Your task to perform on an android device: Is it going to rain tomorrow? Image 0: 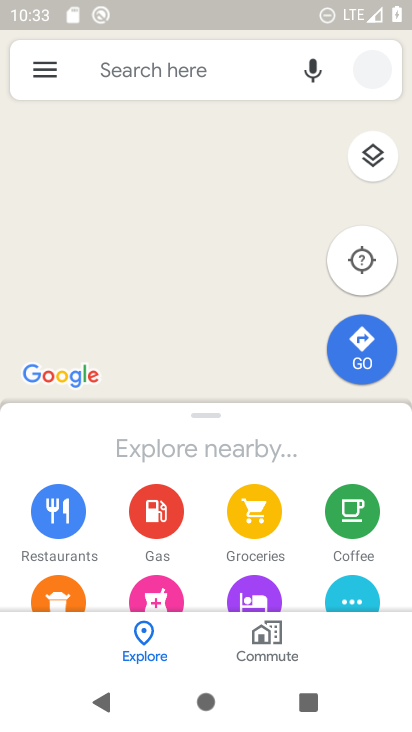
Step 0: press home button
Your task to perform on an android device: Is it going to rain tomorrow? Image 1: 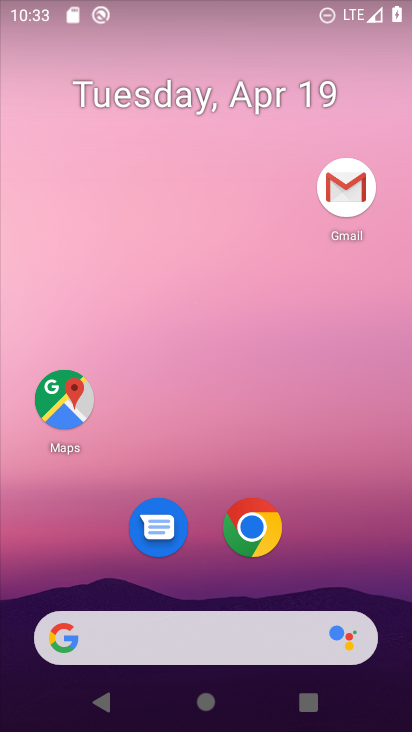
Step 1: click (244, 538)
Your task to perform on an android device: Is it going to rain tomorrow? Image 2: 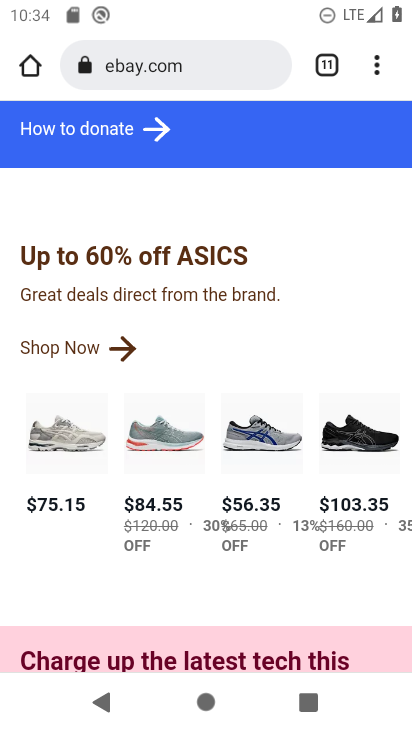
Step 2: click (214, 65)
Your task to perform on an android device: Is it going to rain tomorrow? Image 3: 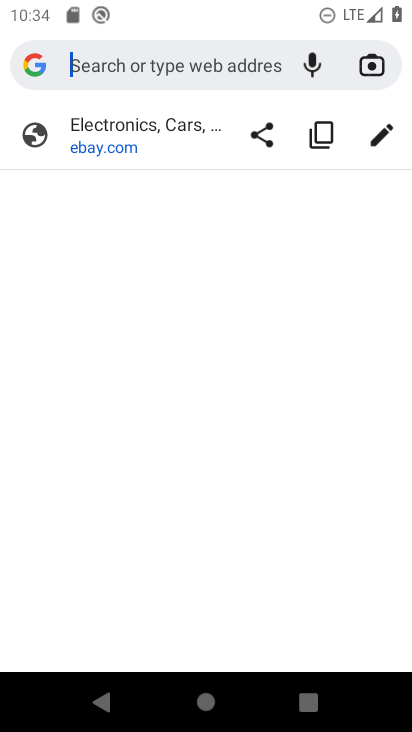
Step 3: type "is it going to rain tomorrow"
Your task to perform on an android device: Is it going to rain tomorrow? Image 4: 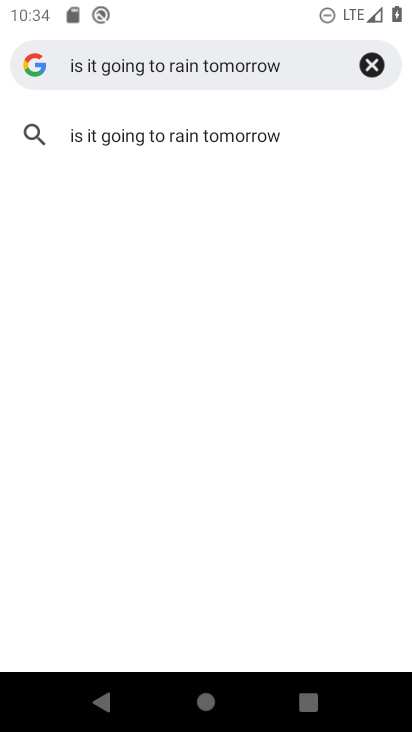
Step 4: click (204, 127)
Your task to perform on an android device: Is it going to rain tomorrow? Image 5: 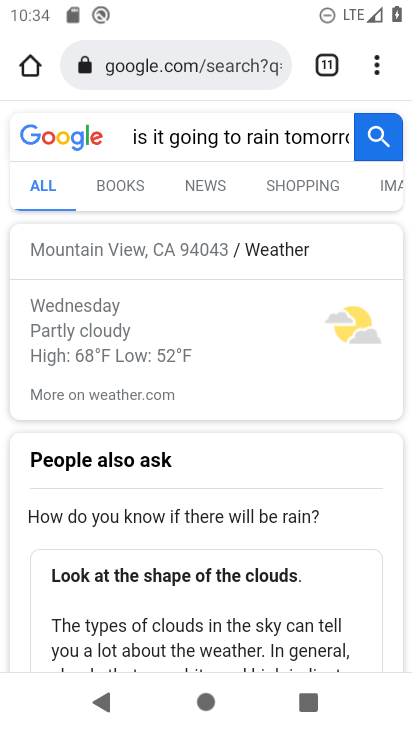
Step 5: task complete